Your task to perform on an android device: Open Youtube and go to the subscriptions tab Image 0: 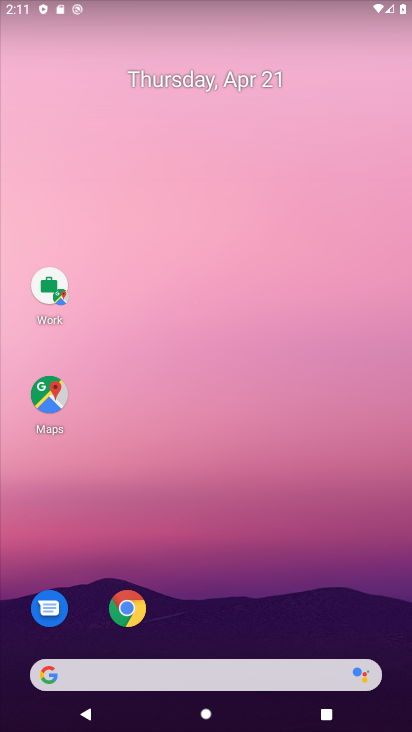
Step 0: drag from (268, 620) to (152, 197)
Your task to perform on an android device: Open Youtube and go to the subscriptions tab Image 1: 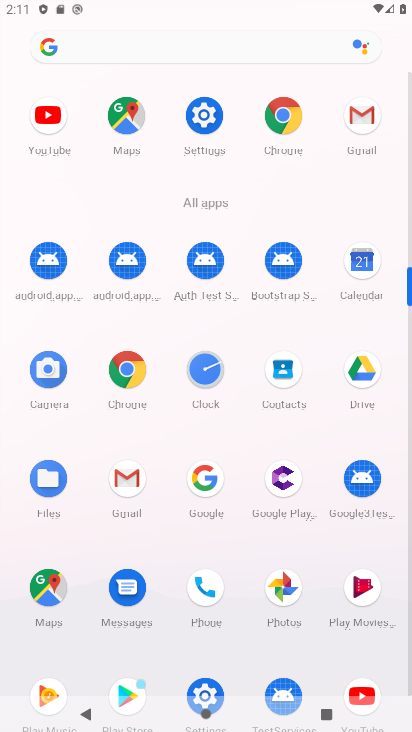
Step 1: click (49, 130)
Your task to perform on an android device: Open Youtube and go to the subscriptions tab Image 2: 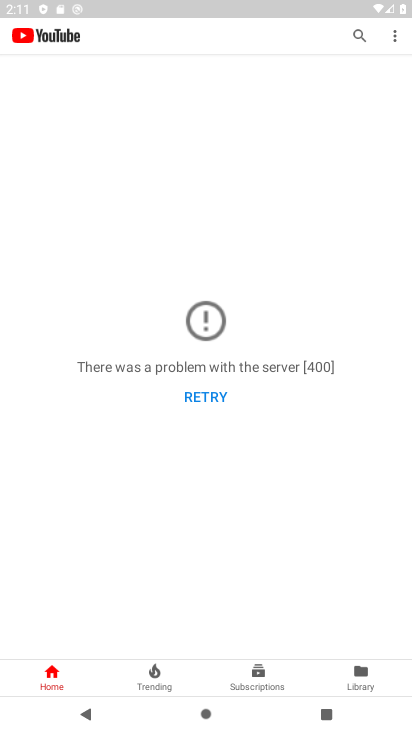
Step 2: click (266, 679)
Your task to perform on an android device: Open Youtube and go to the subscriptions tab Image 3: 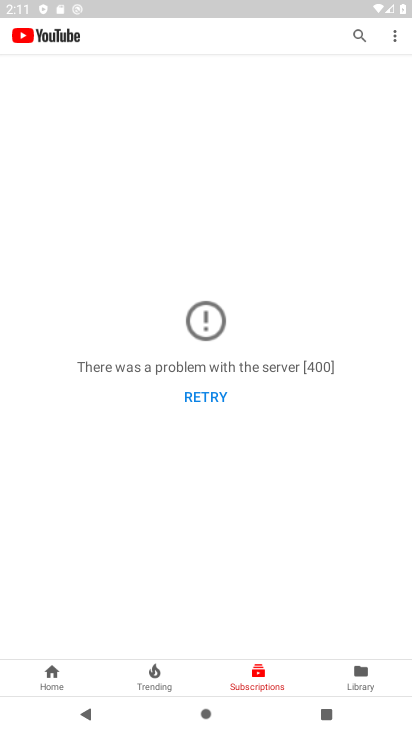
Step 3: task complete